Your task to perform on an android device: Open wifi settings Image 0: 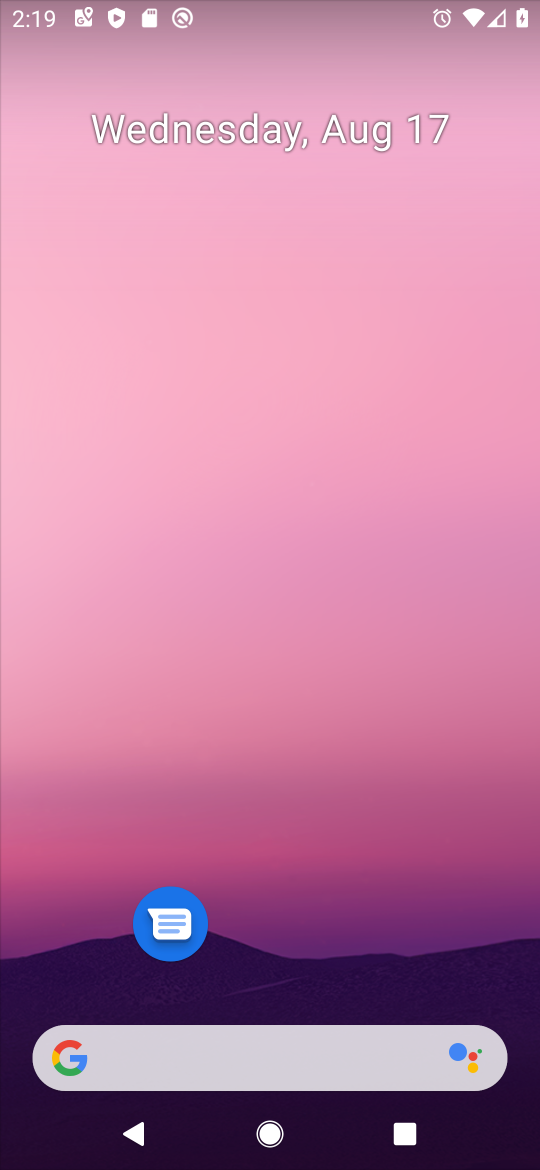
Step 0: drag from (215, 986) to (222, 232)
Your task to perform on an android device: Open wifi settings Image 1: 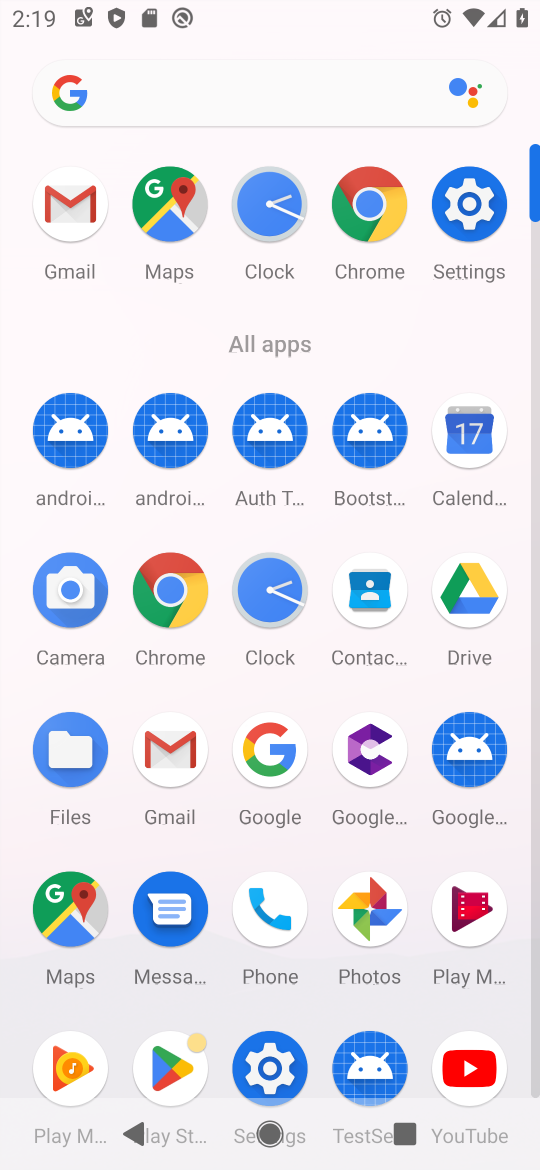
Step 1: click (281, 1041)
Your task to perform on an android device: Open wifi settings Image 2: 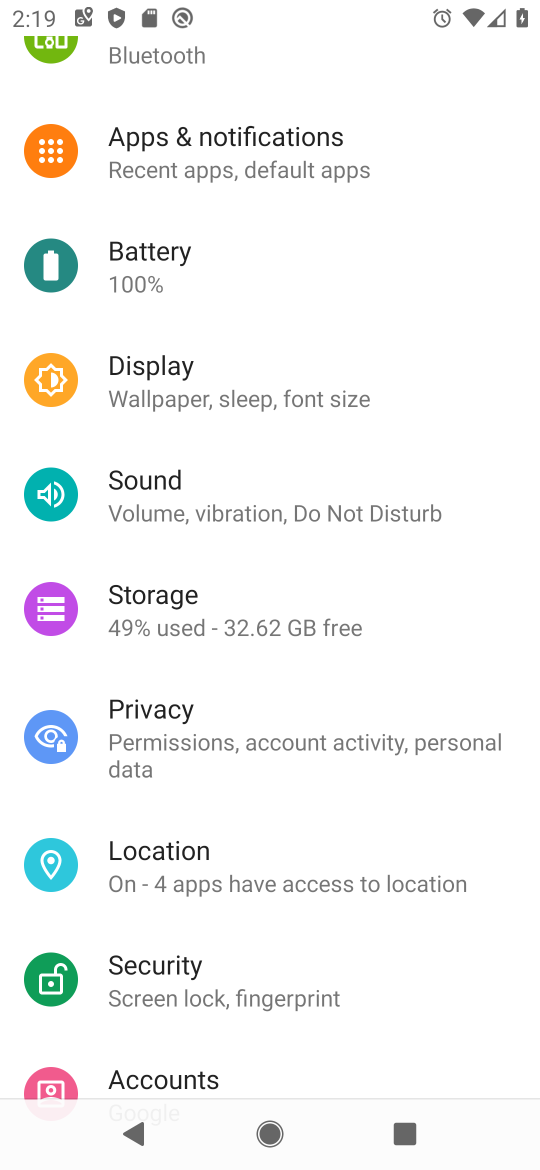
Step 2: drag from (214, 282) to (204, 688)
Your task to perform on an android device: Open wifi settings Image 3: 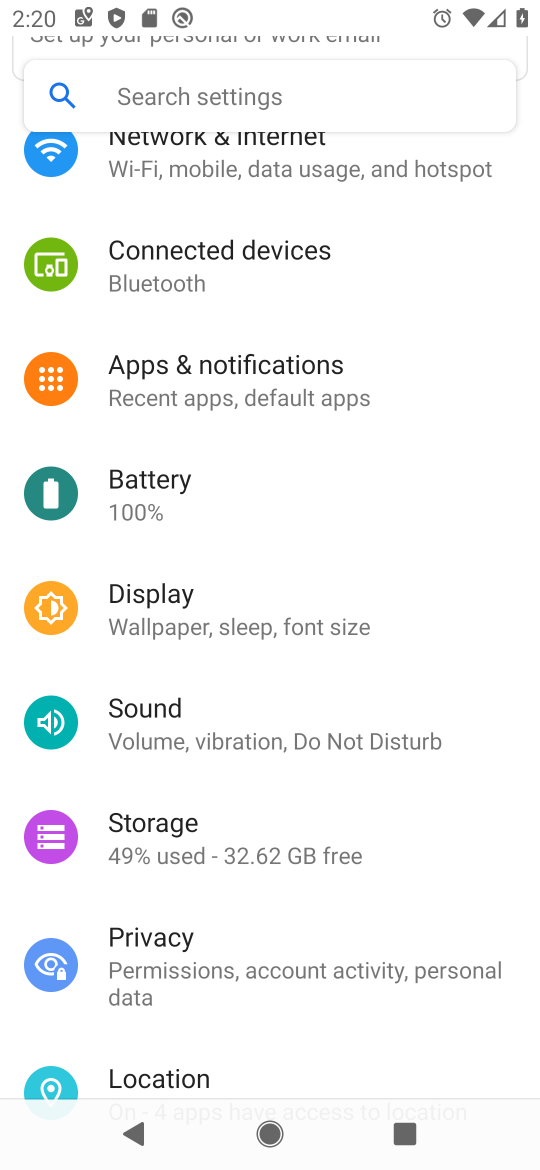
Step 3: drag from (350, 263) to (287, 844)
Your task to perform on an android device: Open wifi settings Image 4: 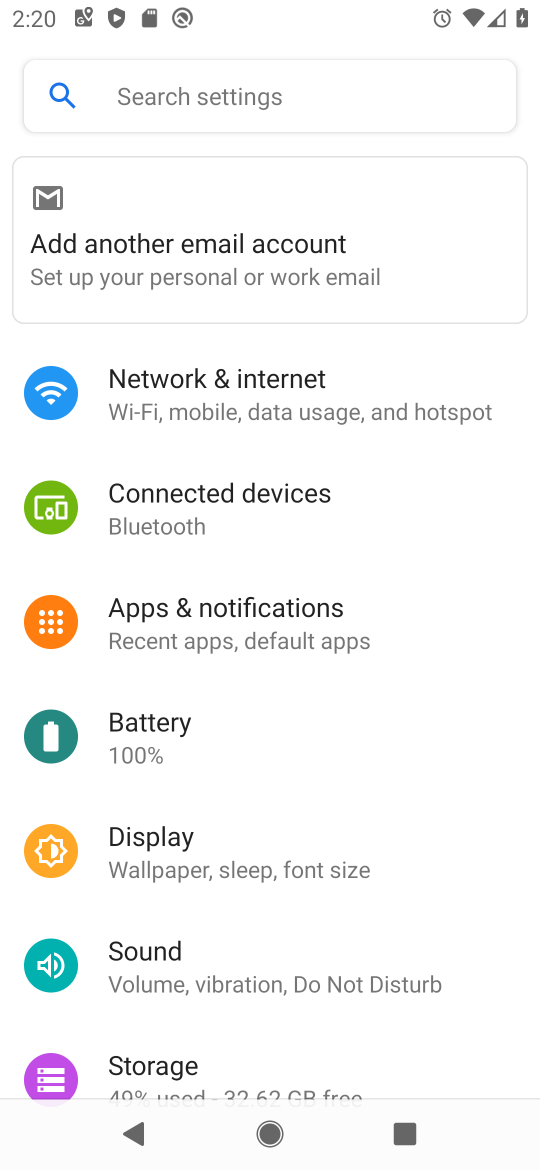
Step 4: click (215, 430)
Your task to perform on an android device: Open wifi settings Image 5: 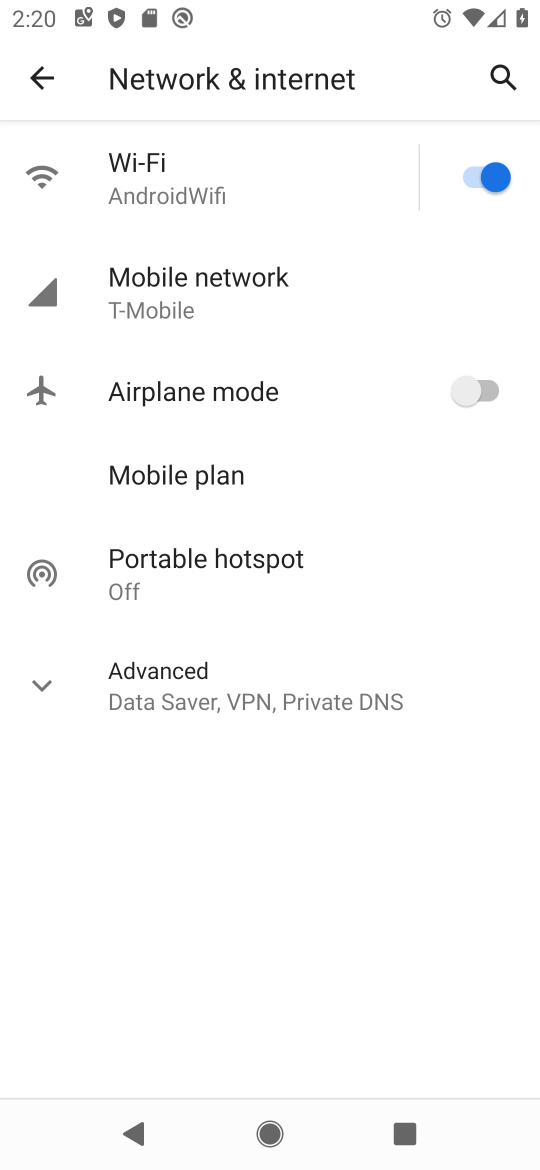
Step 5: click (203, 177)
Your task to perform on an android device: Open wifi settings Image 6: 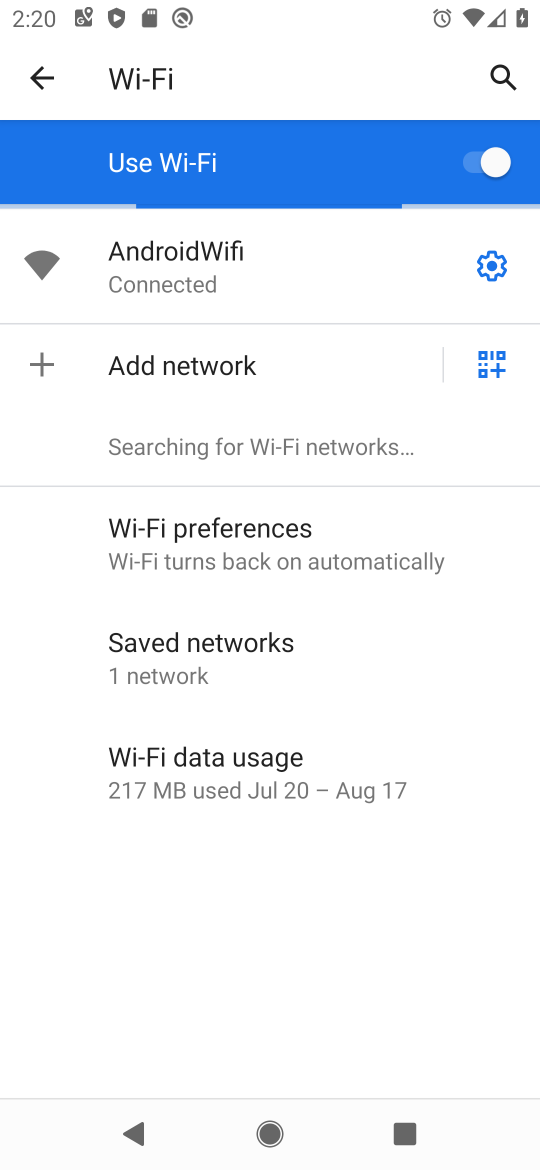
Step 6: task complete